Your task to perform on an android device: snooze an email in the gmail app Image 0: 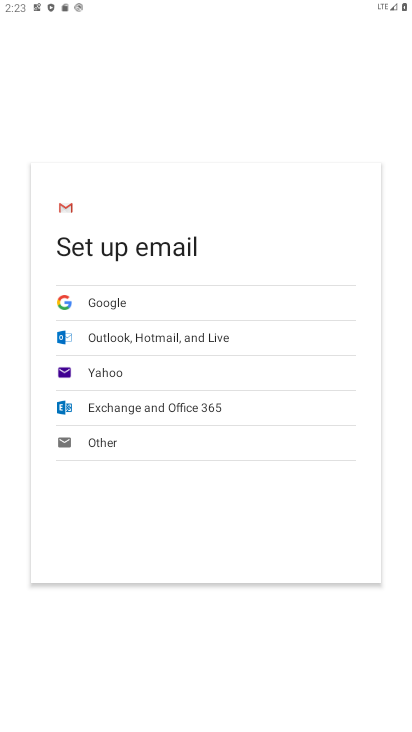
Step 0: press home button
Your task to perform on an android device: snooze an email in the gmail app Image 1: 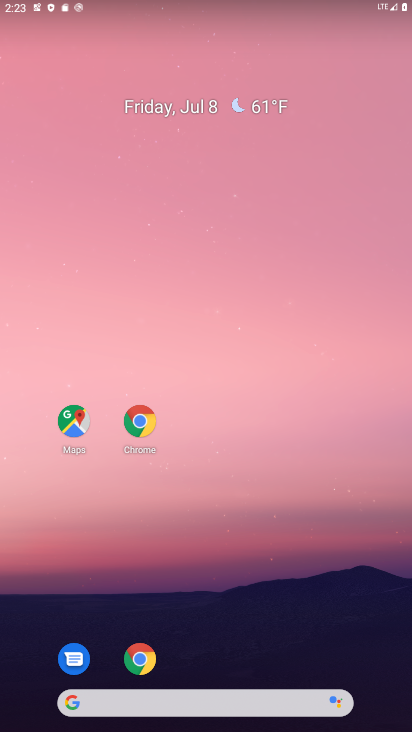
Step 1: drag from (220, 652) to (205, 337)
Your task to perform on an android device: snooze an email in the gmail app Image 2: 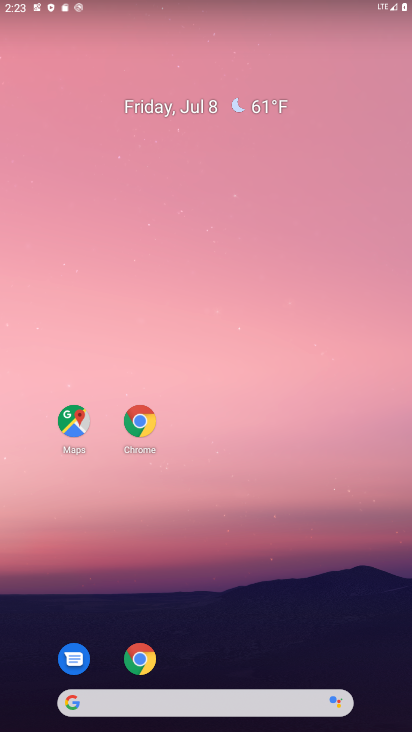
Step 2: drag from (225, 613) to (178, 10)
Your task to perform on an android device: snooze an email in the gmail app Image 3: 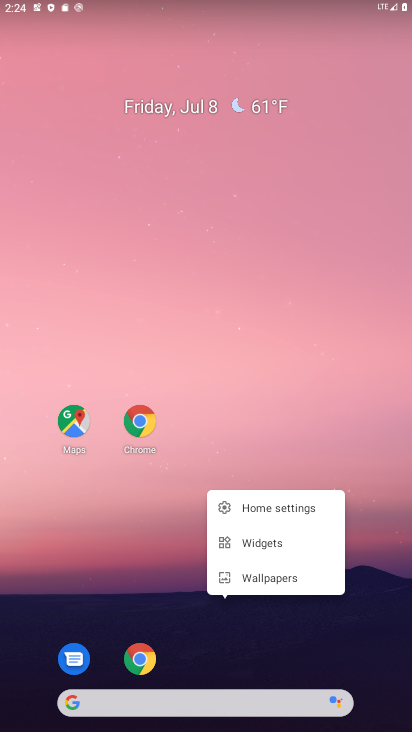
Step 3: click (177, 567)
Your task to perform on an android device: snooze an email in the gmail app Image 4: 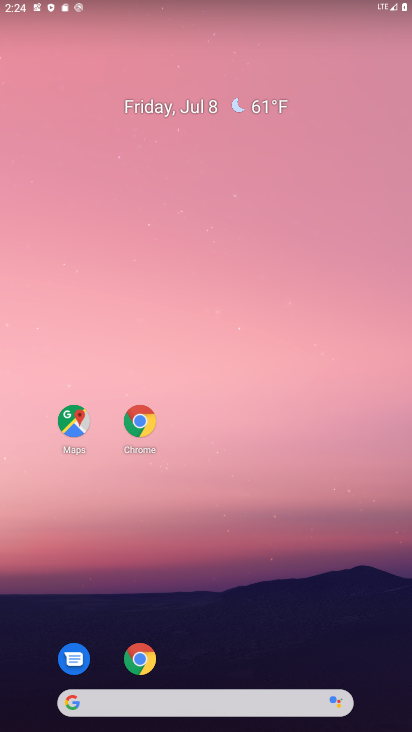
Step 4: drag from (254, 628) to (235, 241)
Your task to perform on an android device: snooze an email in the gmail app Image 5: 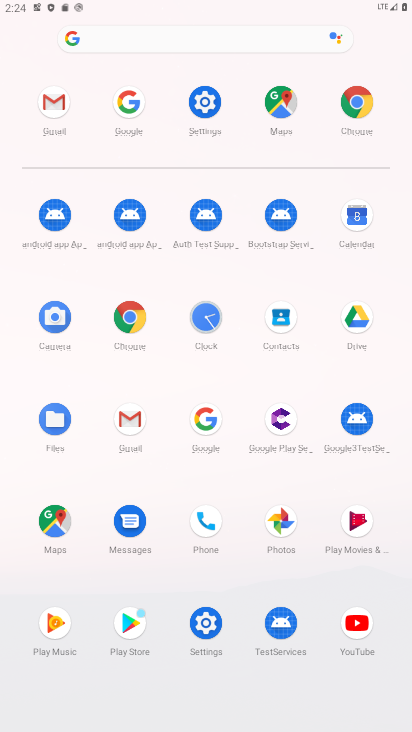
Step 5: click (123, 411)
Your task to perform on an android device: snooze an email in the gmail app Image 6: 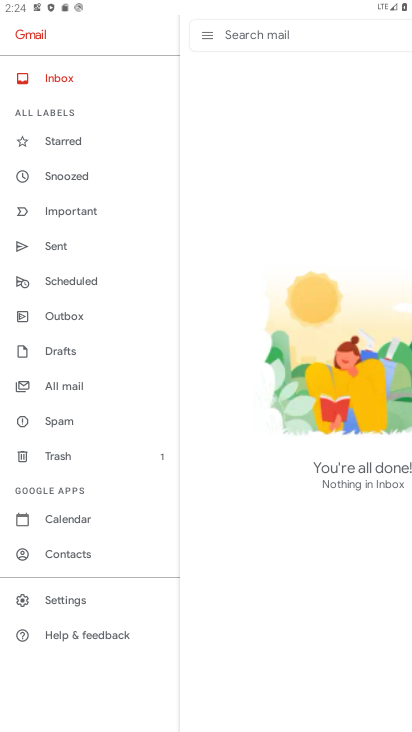
Step 6: click (54, 389)
Your task to perform on an android device: snooze an email in the gmail app Image 7: 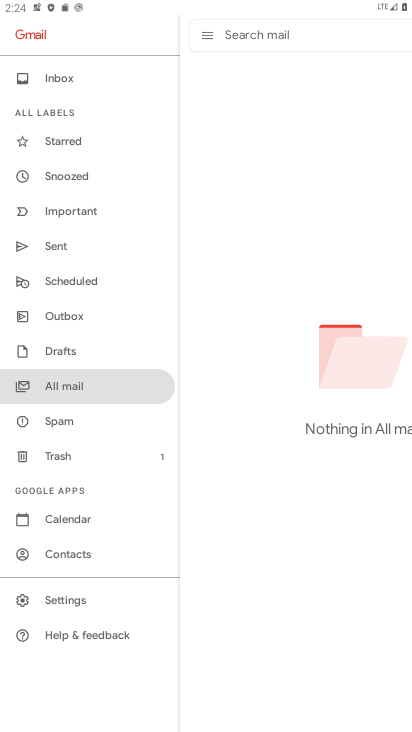
Step 7: task complete